Your task to perform on an android device: Open Maps and search for coffee Image 0: 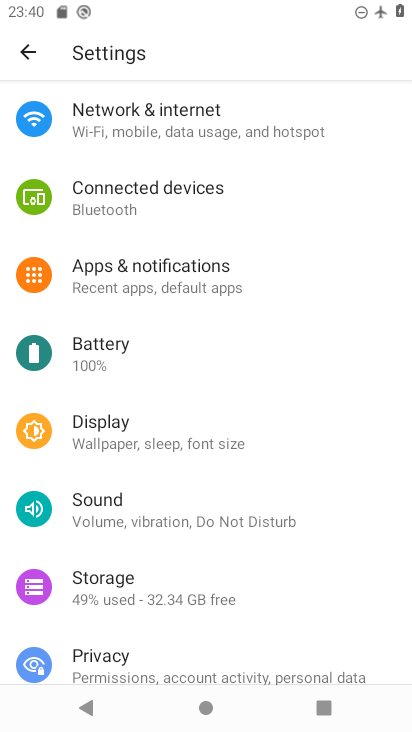
Step 0: press home button
Your task to perform on an android device: Open Maps and search for coffee Image 1: 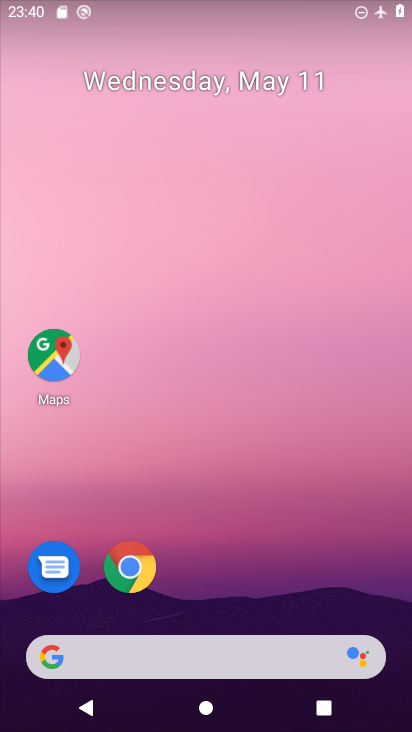
Step 1: click (46, 360)
Your task to perform on an android device: Open Maps and search for coffee Image 2: 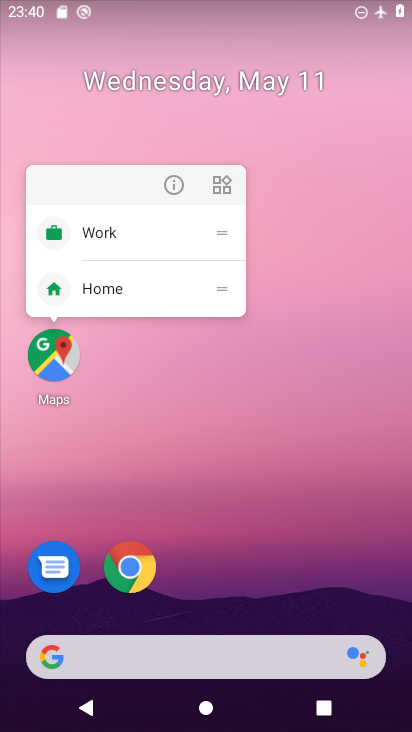
Step 2: click (46, 360)
Your task to perform on an android device: Open Maps and search for coffee Image 3: 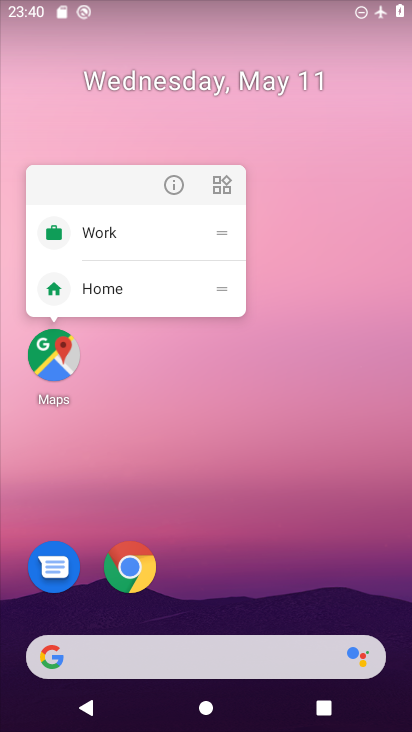
Step 3: click (46, 360)
Your task to perform on an android device: Open Maps and search for coffee Image 4: 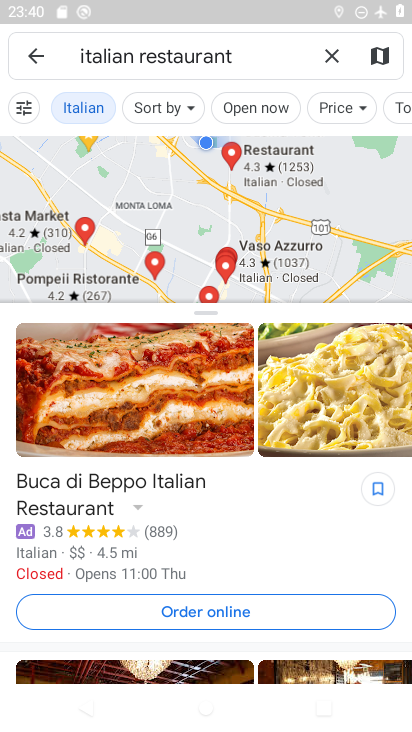
Step 4: click (332, 60)
Your task to perform on an android device: Open Maps and search for coffee Image 5: 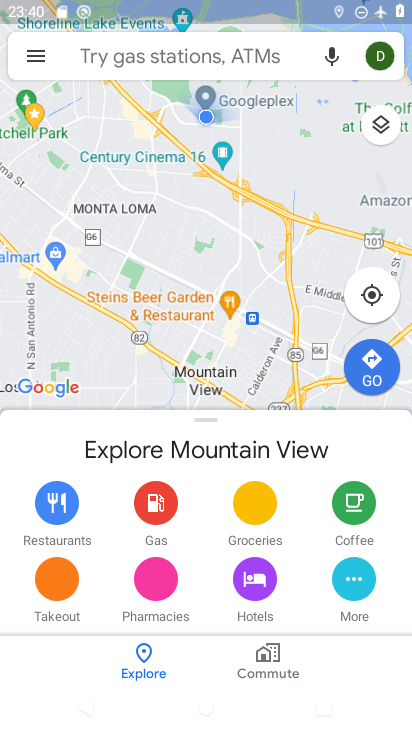
Step 5: click (237, 50)
Your task to perform on an android device: Open Maps and search for coffee Image 6: 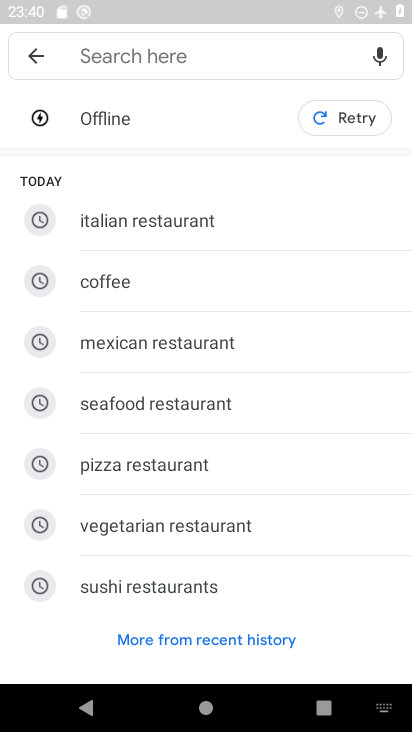
Step 6: click (122, 285)
Your task to perform on an android device: Open Maps and search for coffee Image 7: 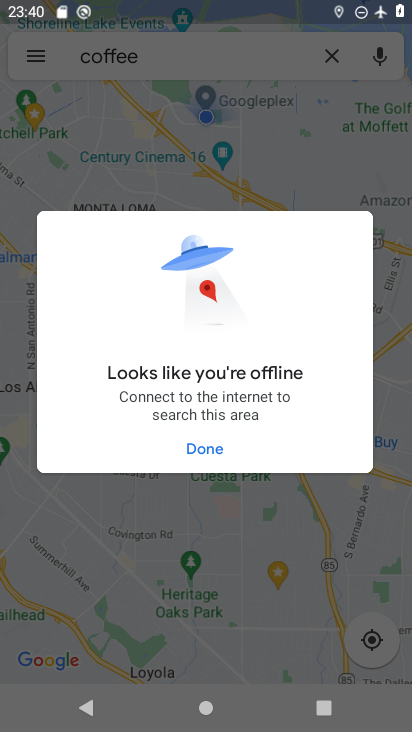
Step 7: task complete